Your task to perform on an android device: What's on my calendar tomorrow? Image 0: 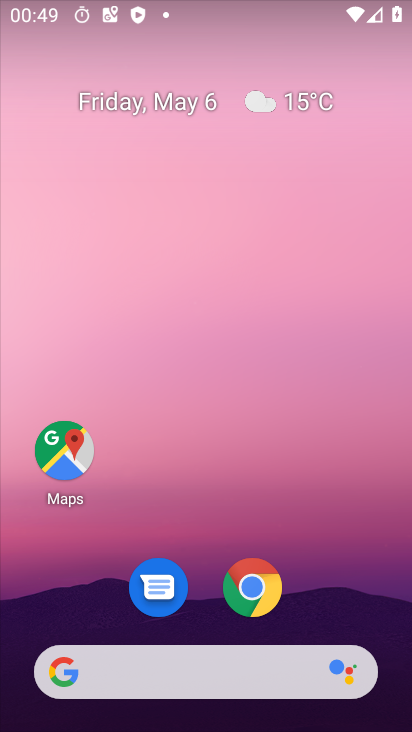
Step 0: click (369, 276)
Your task to perform on an android device: What's on my calendar tomorrow? Image 1: 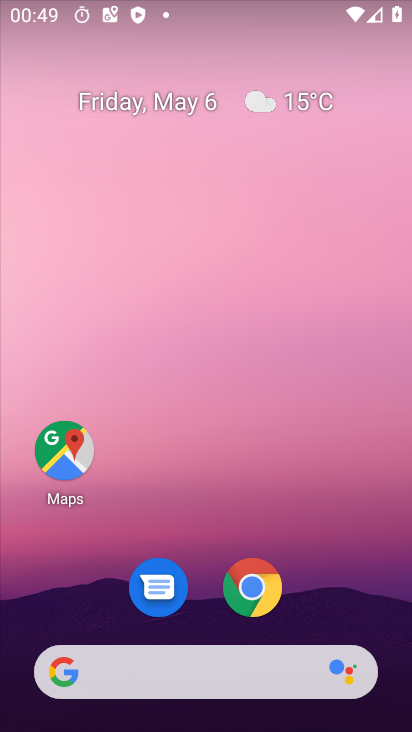
Step 1: drag from (392, 640) to (364, 167)
Your task to perform on an android device: What's on my calendar tomorrow? Image 2: 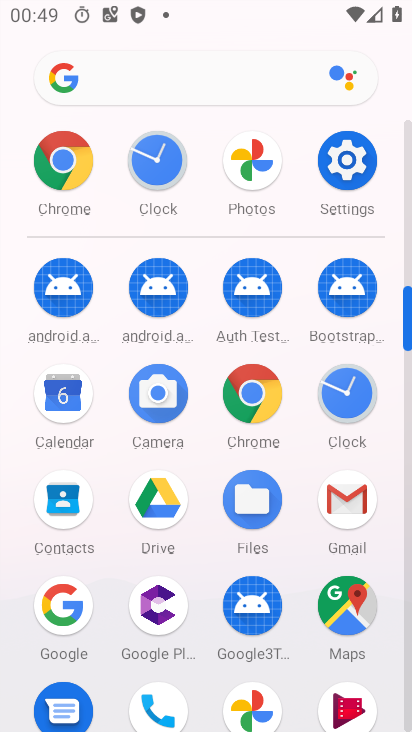
Step 2: click (63, 401)
Your task to perform on an android device: What's on my calendar tomorrow? Image 3: 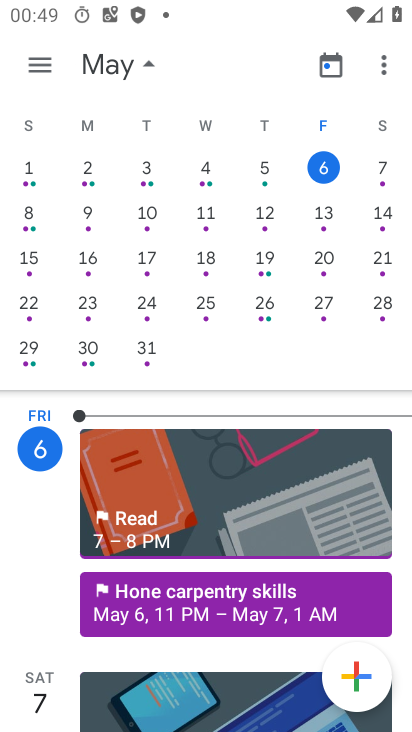
Step 3: click (373, 155)
Your task to perform on an android device: What's on my calendar tomorrow? Image 4: 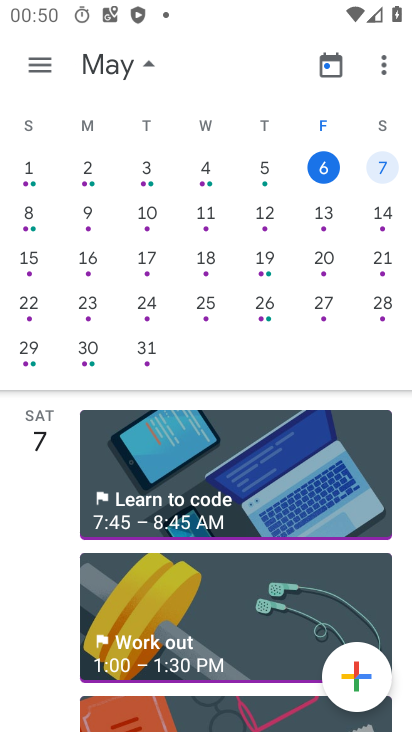
Step 4: task complete